Your task to perform on an android device: toggle sleep mode Image 0: 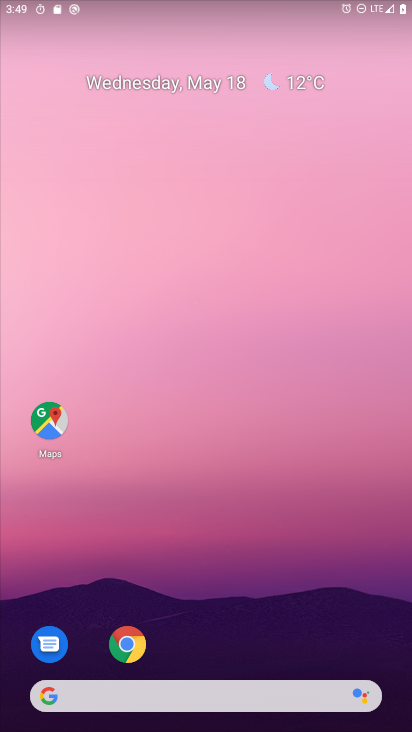
Step 0: drag from (389, 677) to (338, 242)
Your task to perform on an android device: toggle sleep mode Image 1: 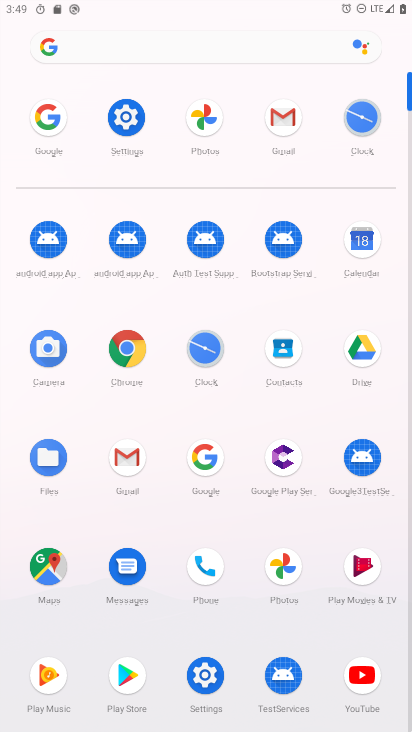
Step 1: click (127, 109)
Your task to perform on an android device: toggle sleep mode Image 2: 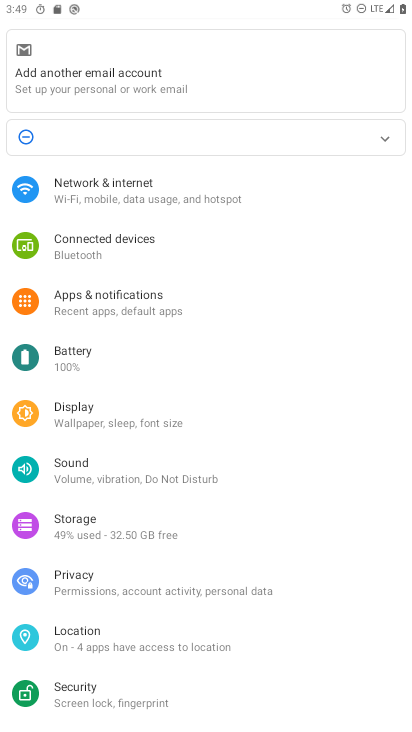
Step 2: click (67, 413)
Your task to perform on an android device: toggle sleep mode Image 3: 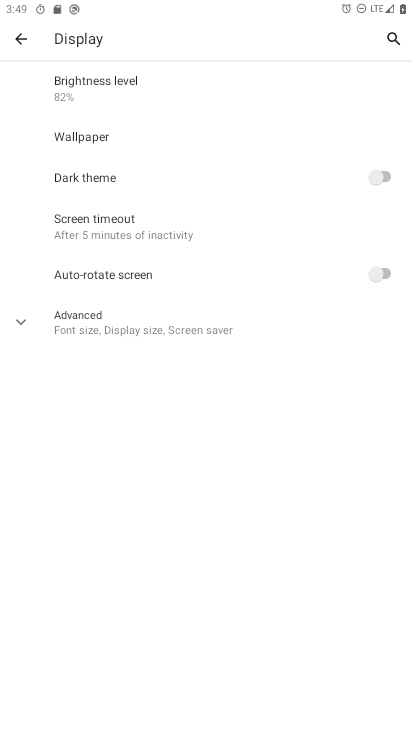
Step 3: click (92, 228)
Your task to perform on an android device: toggle sleep mode Image 4: 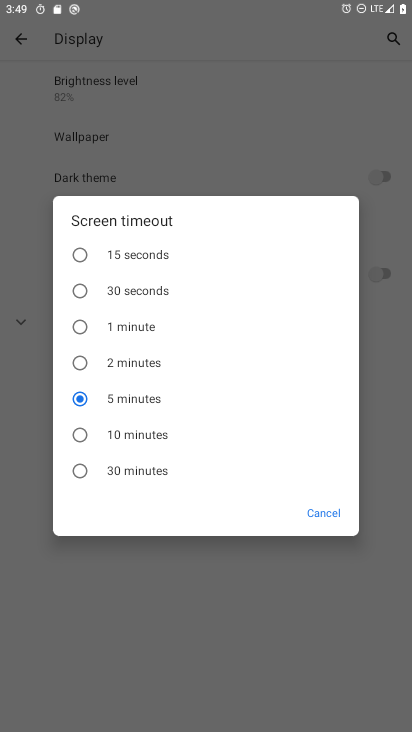
Step 4: click (80, 467)
Your task to perform on an android device: toggle sleep mode Image 5: 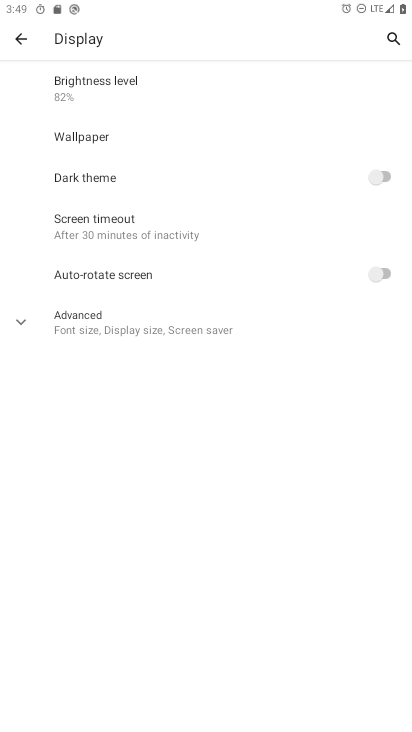
Step 5: task complete